Your task to perform on an android device: turn smart compose on in the gmail app Image 0: 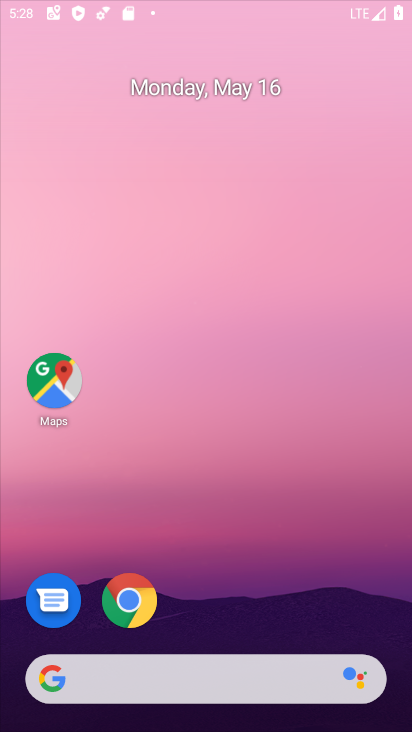
Step 0: drag from (211, 666) to (226, 60)
Your task to perform on an android device: turn smart compose on in the gmail app Image 1: 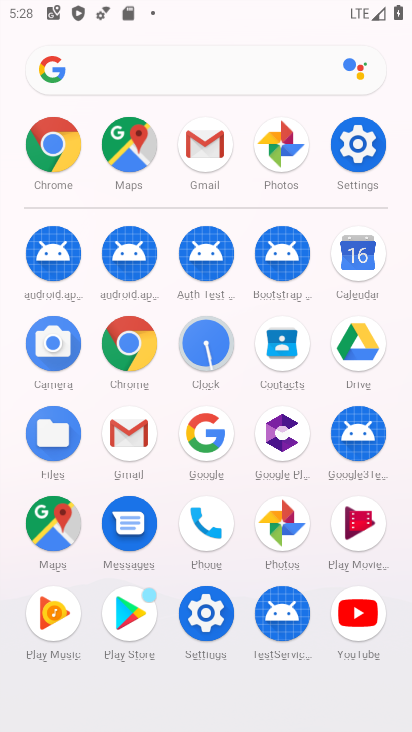
Step 1: click (137, 441)
Your task to perform on an android device: turn smart compose on in the gmail app Image 2: 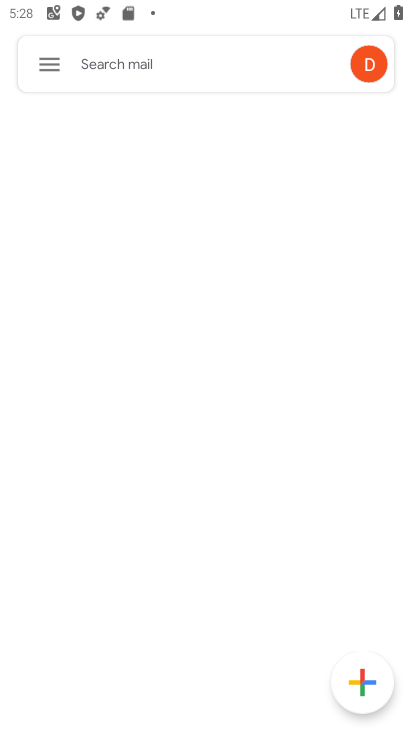
Step 2: click (46, 63)
Your task to perform on an android device: turn smart compose on in the gmail app Image 3: 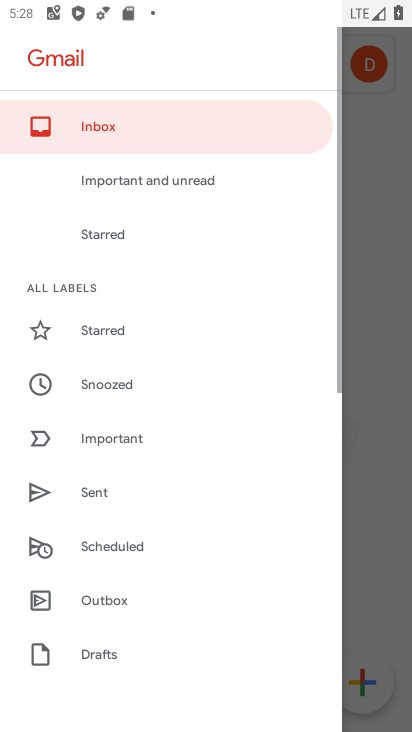
Step 3: drag from (130, 486) to (111, 12)
Your task to perform on an android device: turn smart compose on in the gmail app Image 4: 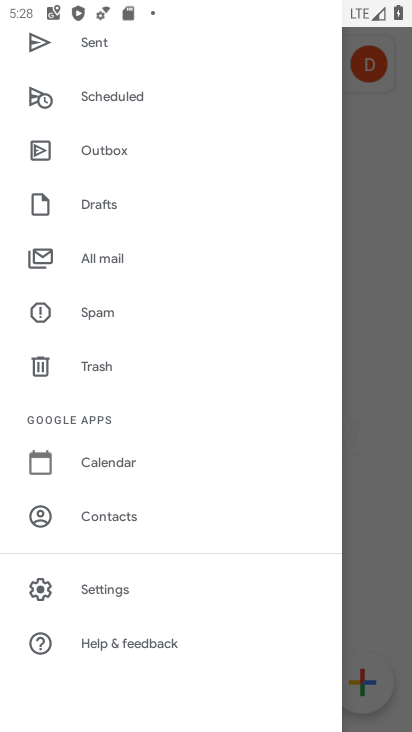
Step 4: click (98, 587)
Your task to perform on an android device: turn smart compose on in the gmail app Image 5: 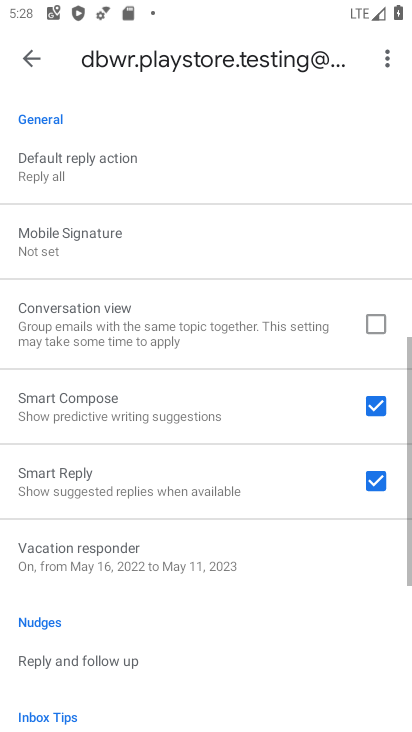
Step 5: task complete